Your task to perform on an android device: turn off smart reply in the gmail app Image 0: 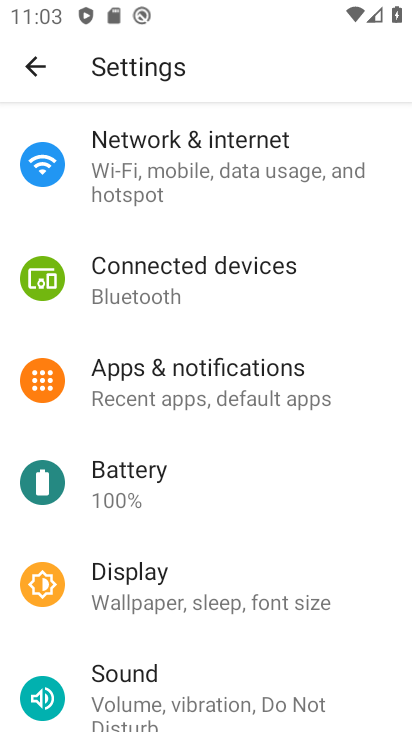
Step 0: press home button
Your task to perform on an android device: turn off smart reply in the gmail app Image 1: 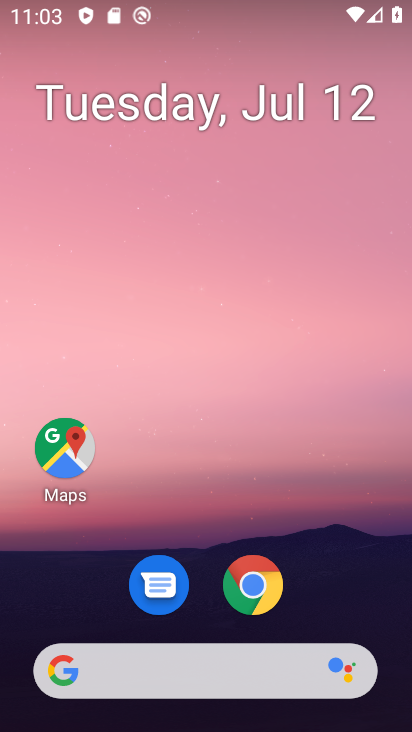
Step 1: drag from (336, 585) to (328, 91)
Your task to perform on an android device: turn off smart reply in the gmail app Image 2: 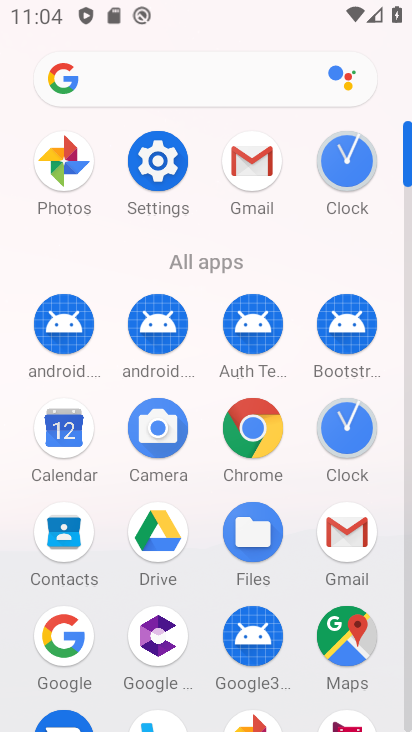
Step 2: click (252, 164)
Your task to perform on an android device: turn off smart reply in the gmail app Image 3: 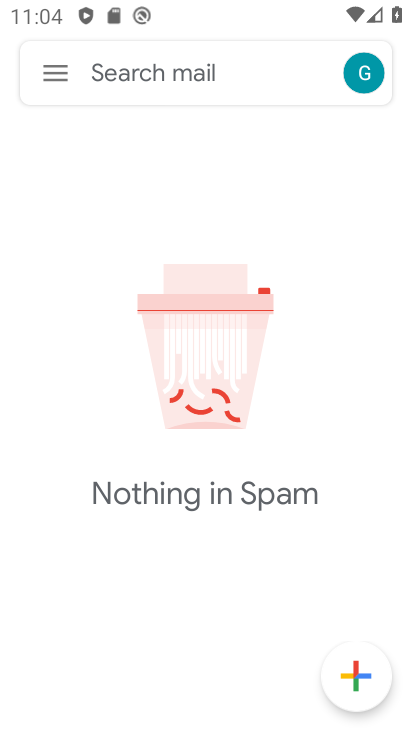
Step 3: click (57, 67)
Your task to perform on an android device: turn off smart reply in the gmail app Image 4: 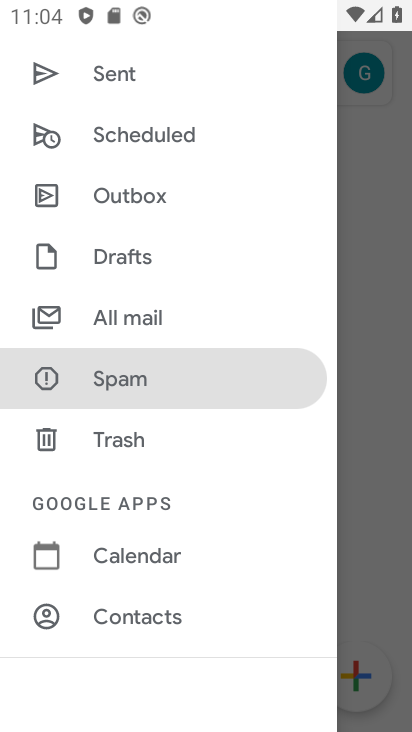
Step 4: drag from (205, 289) to (232, 118)
Your task to perform on an android device: turn off smart reply in the gmail app Image 5: 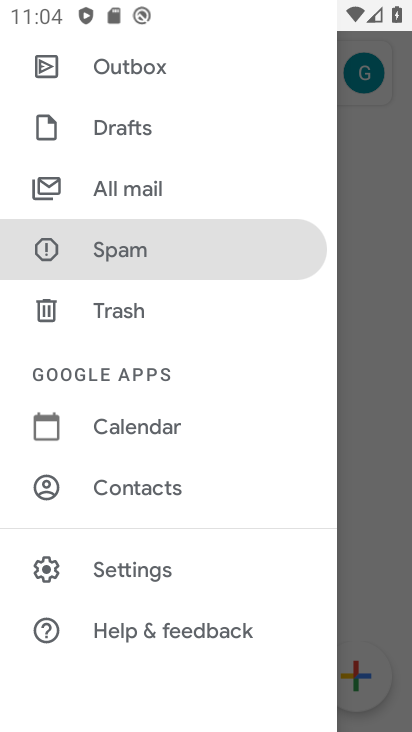
Step 5: click (162, 565)
Your task to perform on an android device: turn off smart reply in the gmail app Image 6: 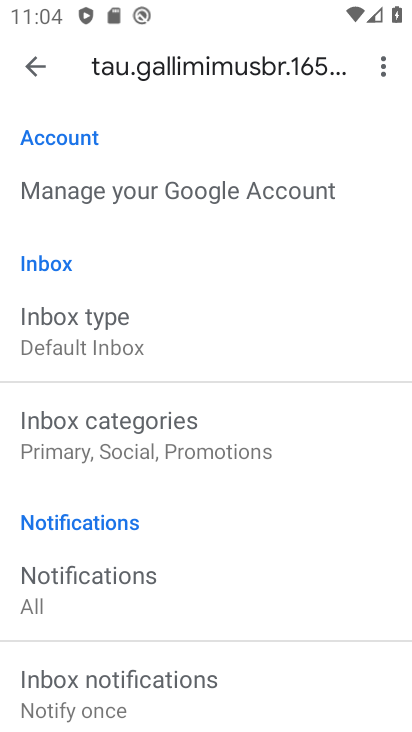
Step 6: task complete